Your task to perform on an android device: What's the weather? Image 0: 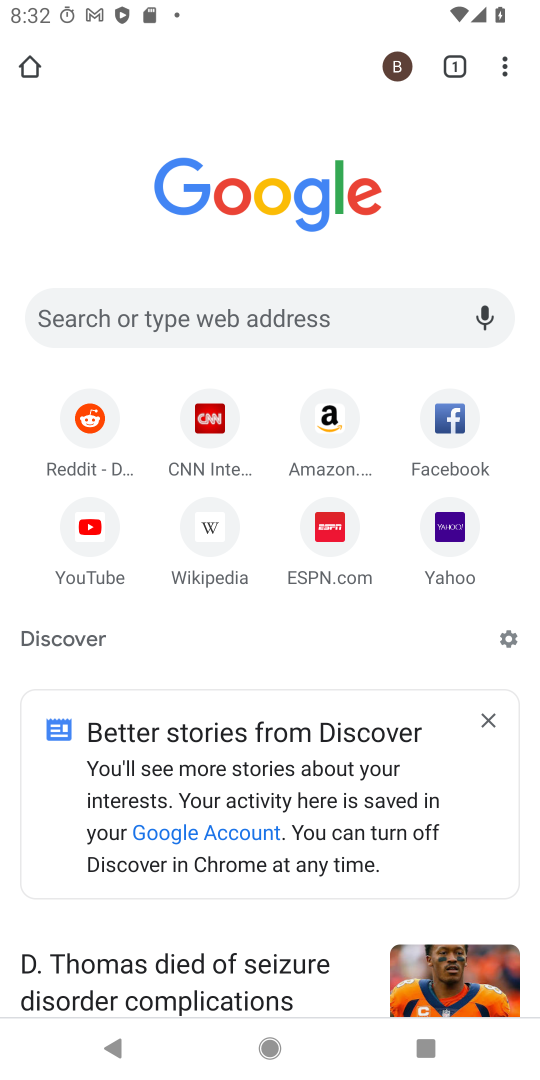
Step 0: press home button
Your task to perform on an android device: What's the weather? Image 1: 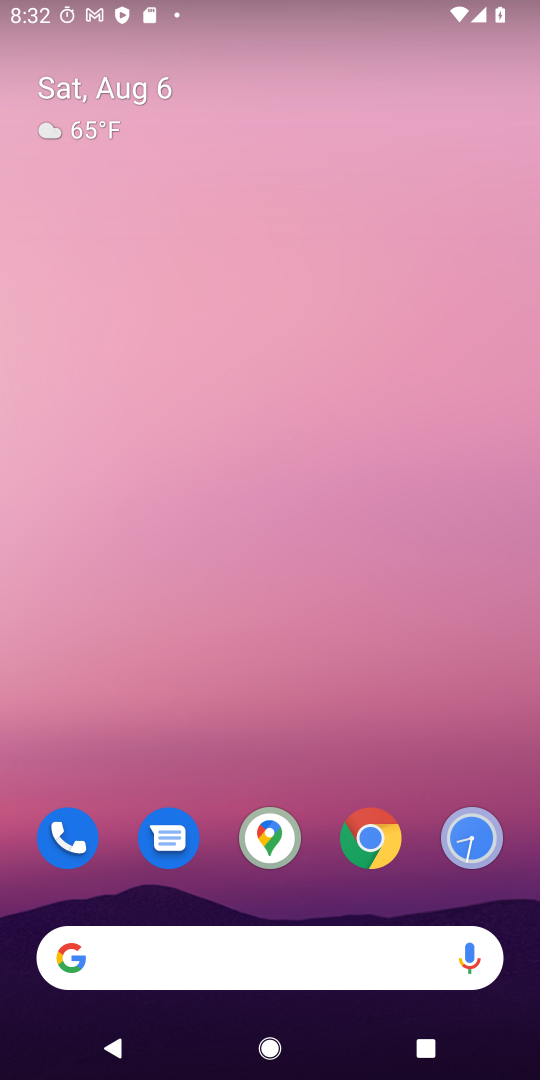
Step 1: click (223, 977)
Your task to perform on an android device: What's the weather? Image 2: 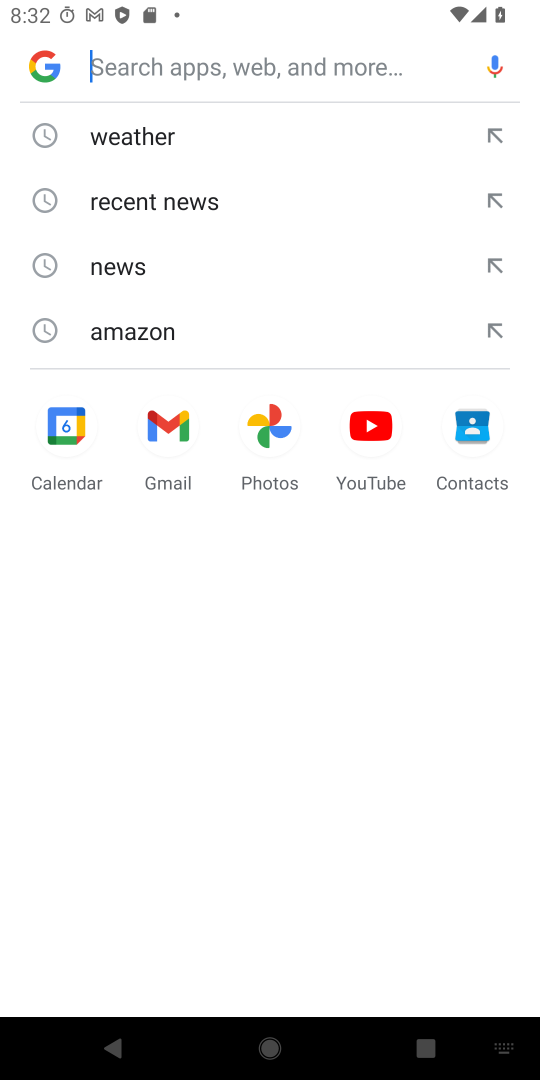
Step 2: click (115, 130)
Your task to perform on an android device: What's the weather? Image 3: 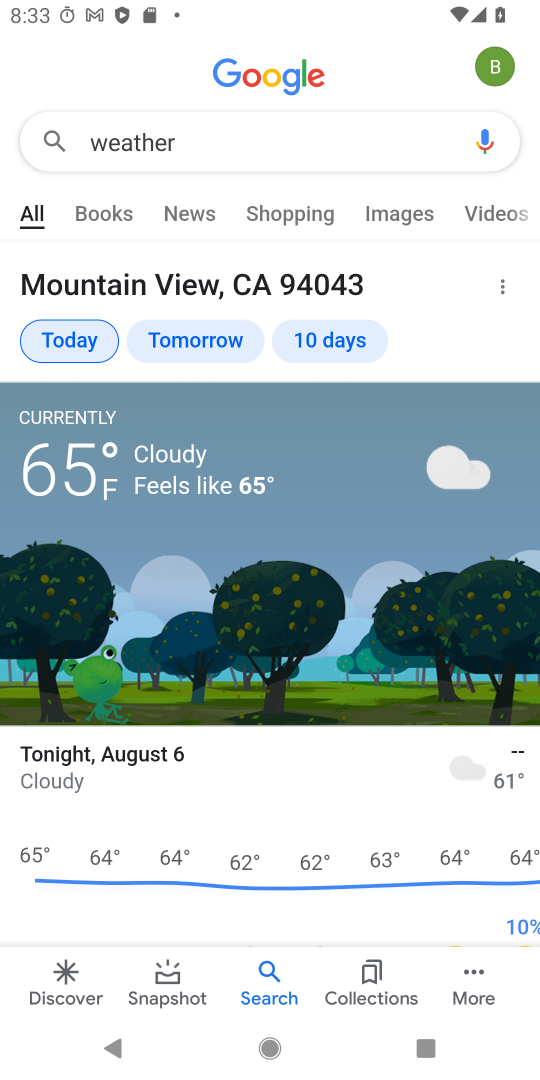
Step 3: task complete